Your task to perform on an android device: find which apps use the phone's location Image 0: 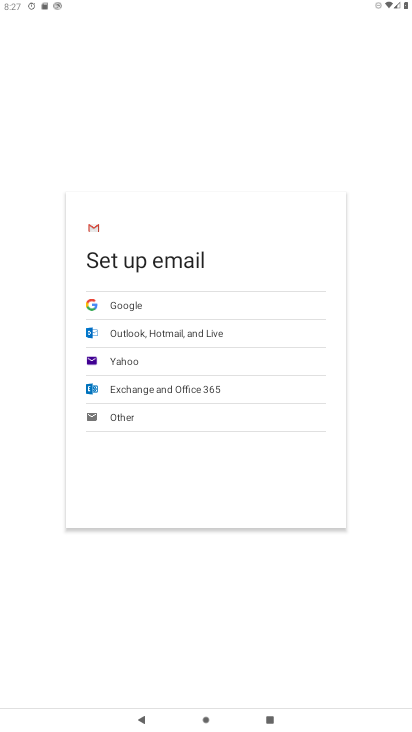
Step 0: press home button
Your task to perform on an android device: find which apps use the phone's location Image 1: 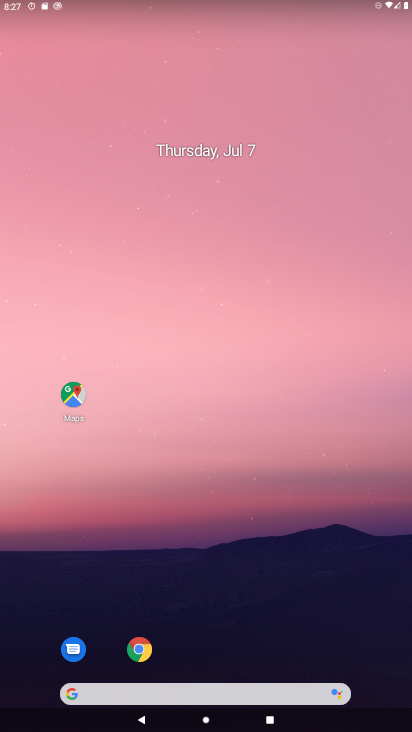
Step 1: drag from (250, 624) to (259, 35)
Your task to perform on an android device: find which apps use the phone's location Image 2: 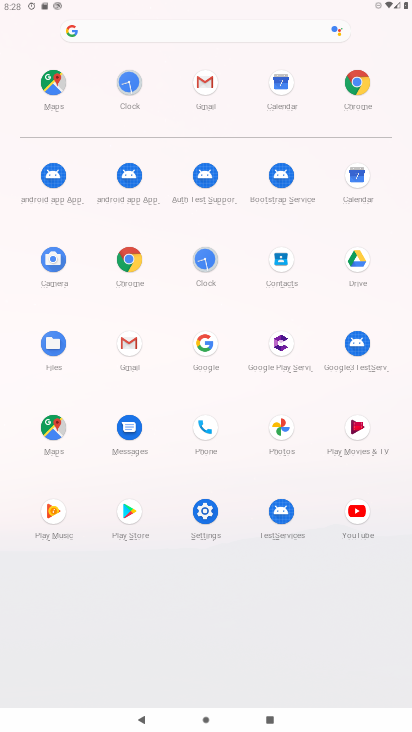
Step 2: click (203, 502)
Your task to perform on an android device: find which apps use the phone's location Image 3: 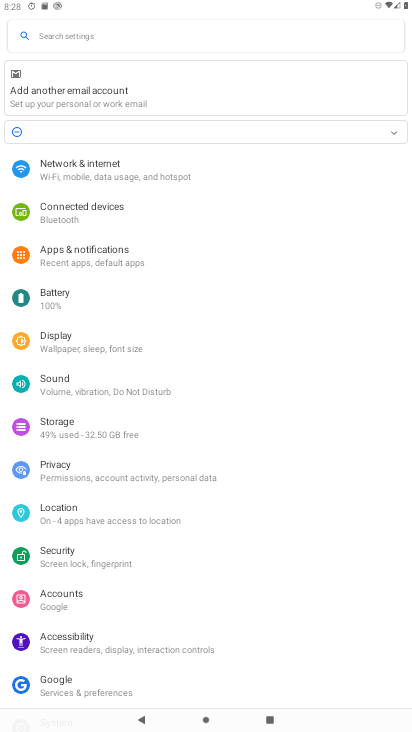
Step 3: click (79, 510)
Your task to perform on an android device: find which apps use the phone's location Image 4: 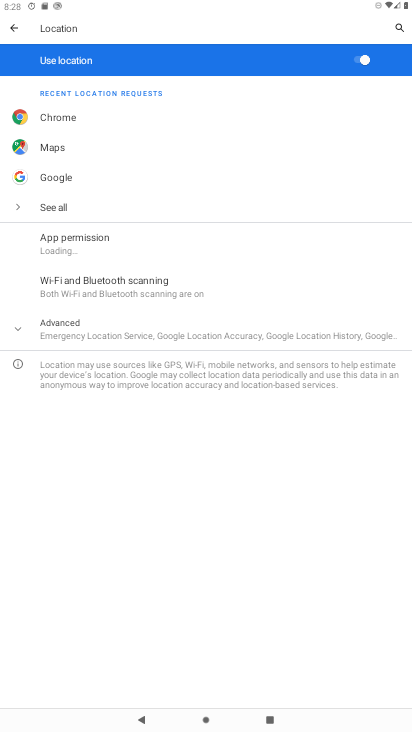
Step 4: click (101, 238)
Your task to perform on an android device: find which apps use the phone's location Image 5: 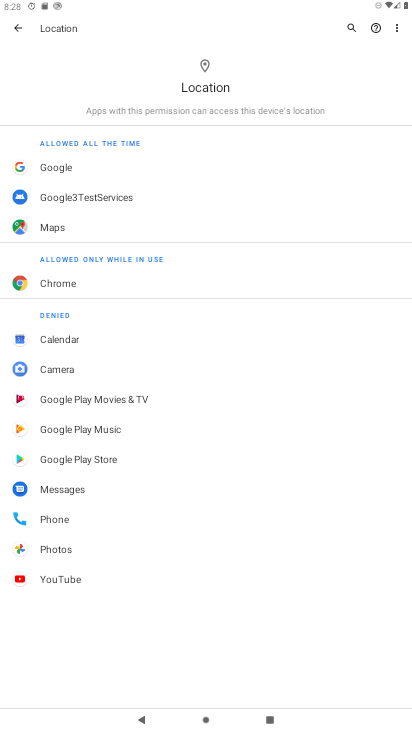
Step 5: task complete